Your task to perform on an android device: turn on priority inbox in the gmail app Image 0: 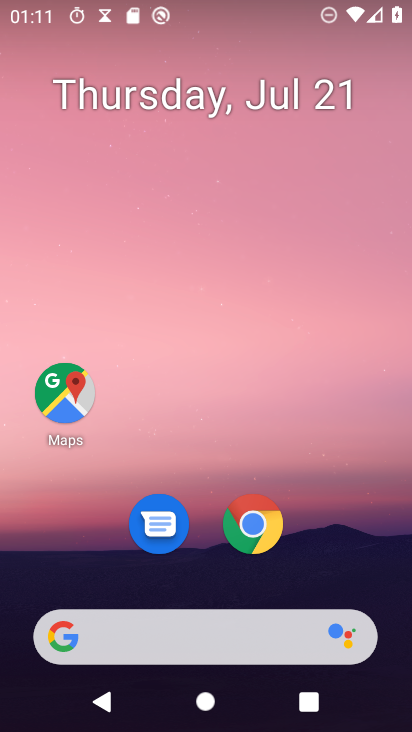
Step 0: drag from (211, 622) to (266, 376)
Your task to perform on an android device: turn on priority inbox in the gmail app Image 1: 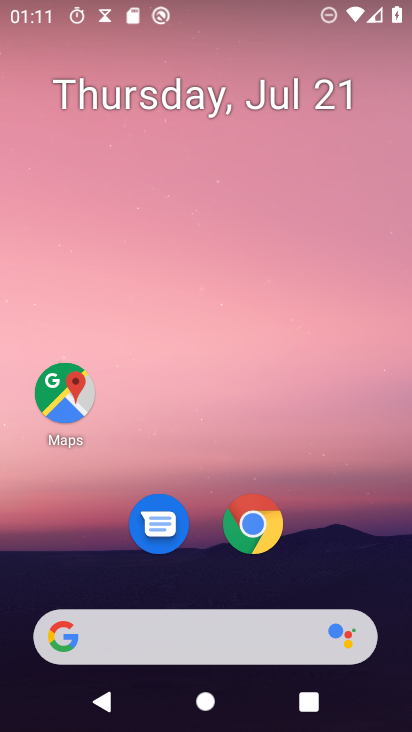
Step 1: drag from (168, 617) to (286, 103)
Your task to perform on an android device: turn on priority inbox in the gmail app Image 2: 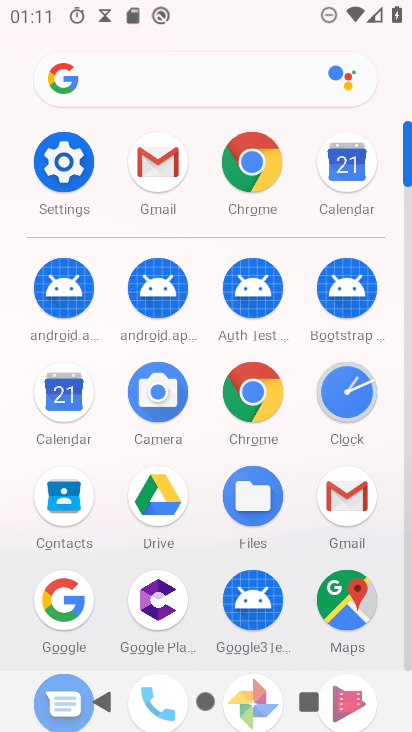
Step 2: click (156, 165)
Your task to perform on an android device: turn on priority inbox in the gmail app Image 3: 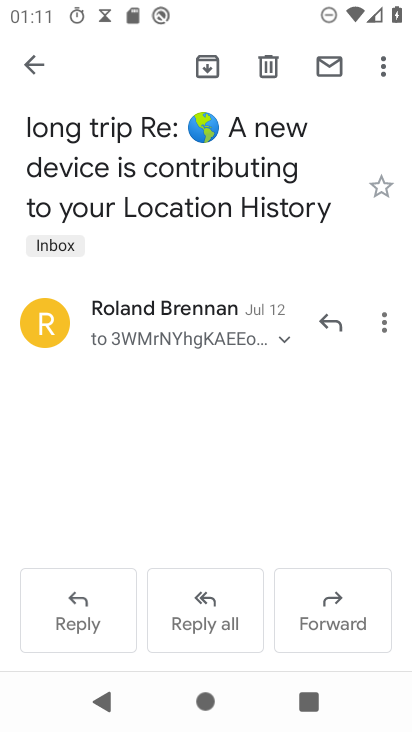
Step 3: click (29, 63)
Your task to perform on an android device: turn on priority inbox in the gmail app Image 4: 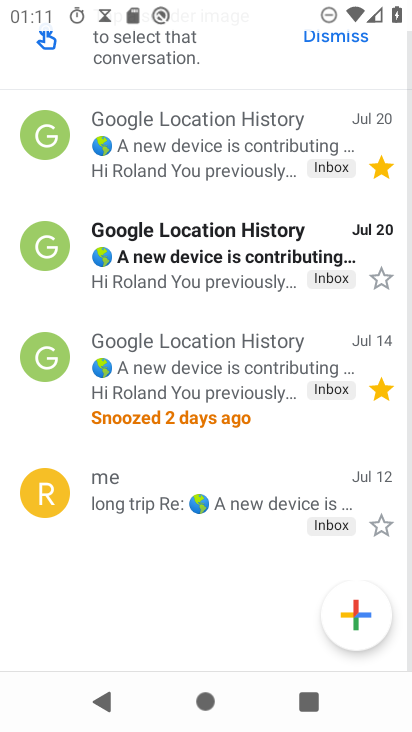
Step 4: drag from (95, 106) to (129, 456)
Your task to perform on an android device: turn on priority inbox in the gmail app Image 5: 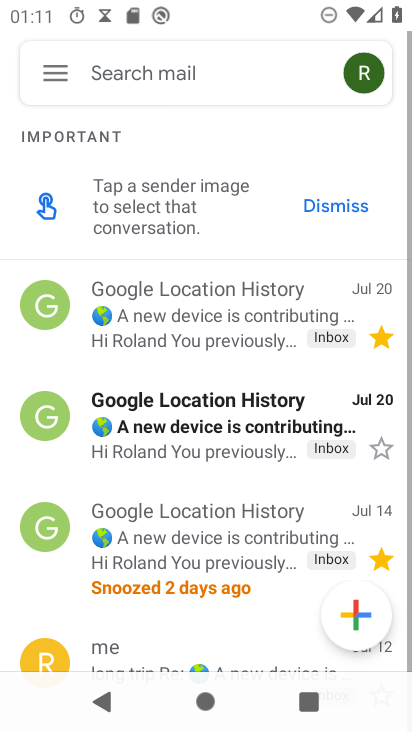
Step 5: click (55, 83)
Your task to perform on an android device: turn on priority inbox in the gmail app Image 6: 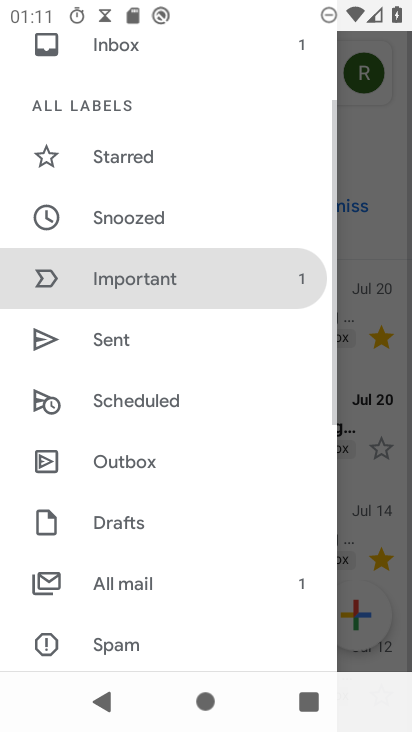
Step 6: drag from (187, 576) to (228, 216)
Your task to perform on an android device: turn on priority inbox in the gmail app Image 7: 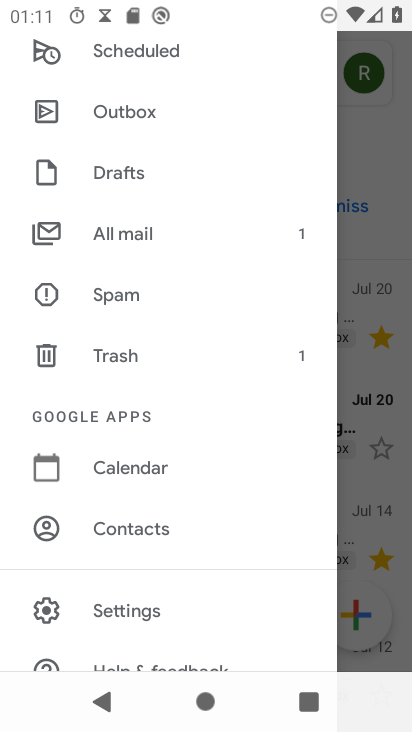
Step 7: click (130, 610)
Your task to perform on an android device: turn on priority inbox in the gmail app Image 8: 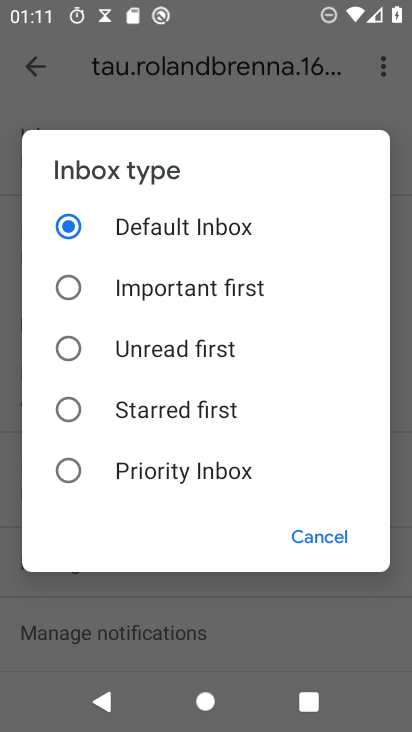
Step 8: click (69, 465)
Your task to perform on an android device: turn on priority inbox in the gmail app Image 9: 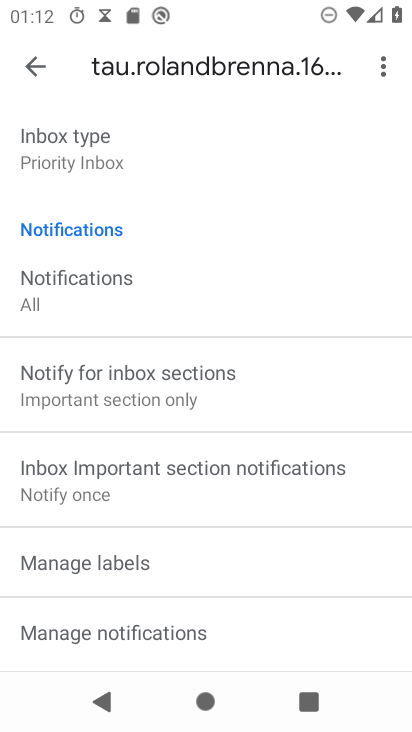
Step 9: task complete